Your task to perform on an android device: turn off picture-in-picture Image 0: 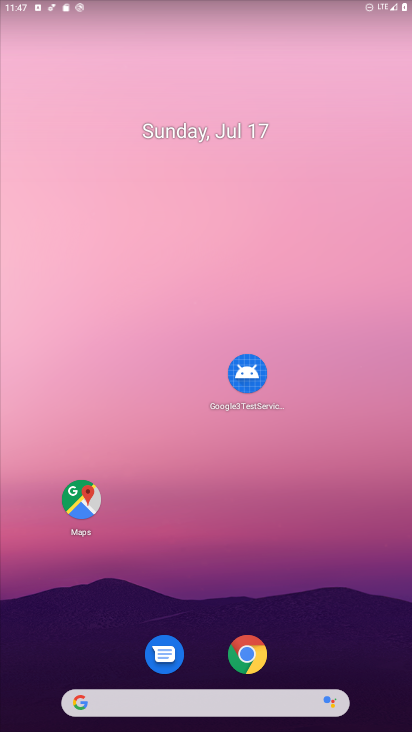
Step 0: click (250, 647)
Your task to perform on an android device: turn off picture-in-picture Image 1: 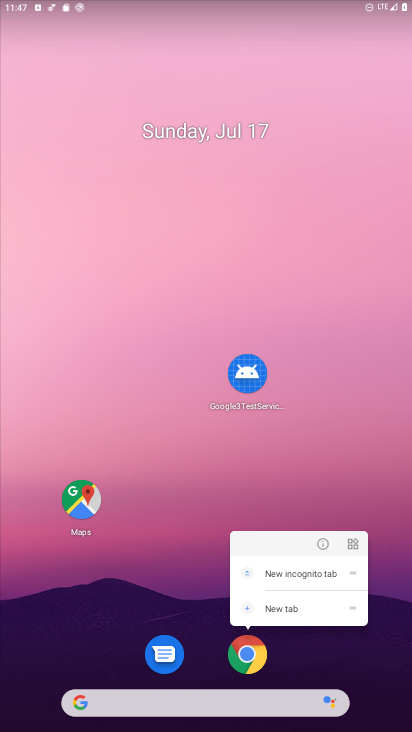
Step 1: click (322, 545)
Your task to perform on an android device: turn off picture-in-picture Image 2: 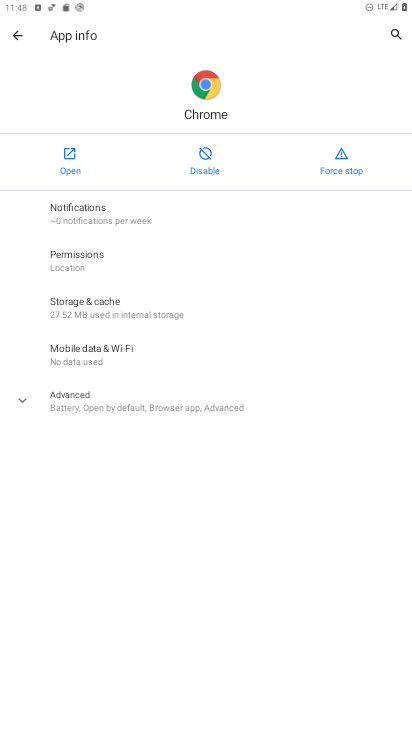
Step 2: click (95, 396)
Your task to perform on an android device: turn off picture-in-picture Image 3: 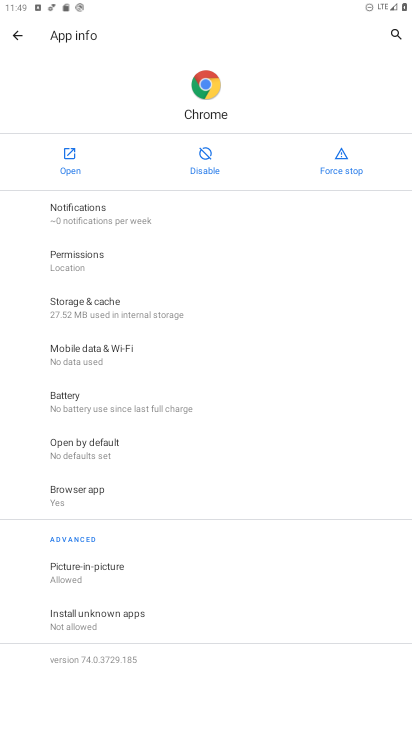
Step 3: click (116, 576)
Your task to perform on an android device: turn off picture-in-picture Image 4: 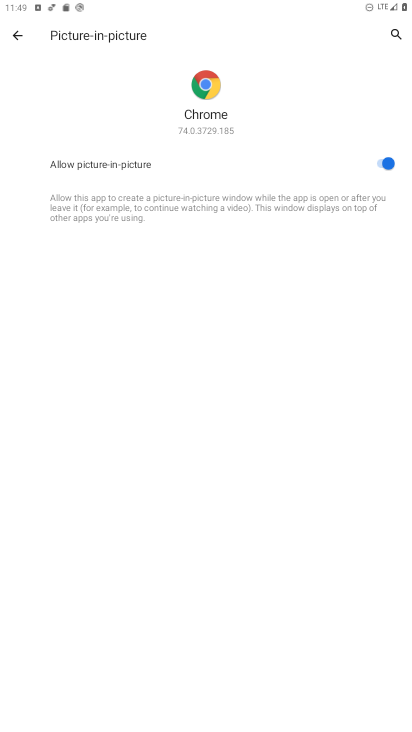
Step 4: click (373, 166)
Your task to perform on an android device: turn off picture-in-picture Image 5: 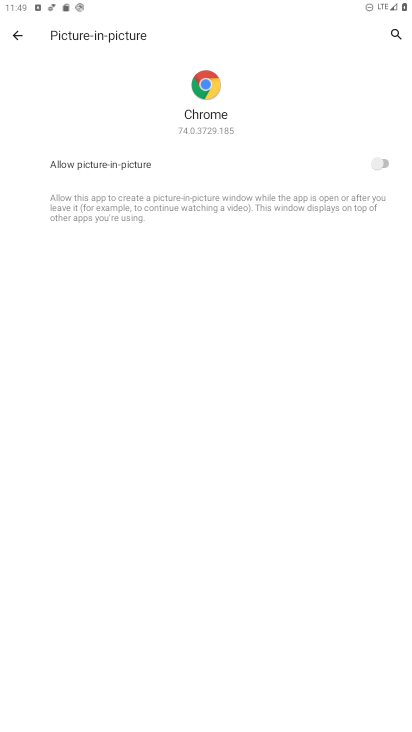
Step 5: task complete